Your task to perform on an android device: Search for Mexican restaurants on Maps Image 0: 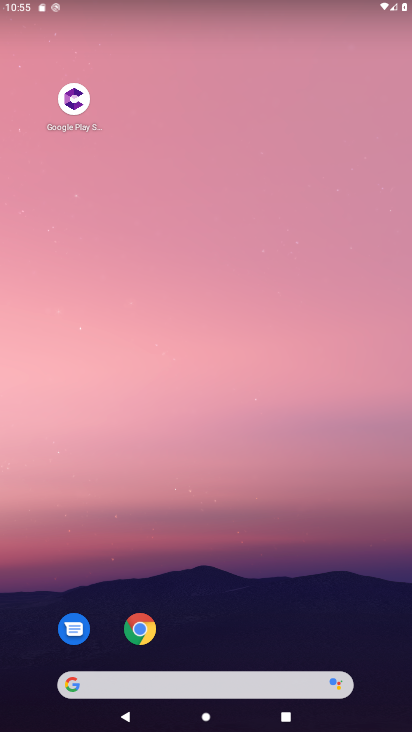
Step 0: drag from (239, 626) to (240, 101)
Your task to perform on an android device: Search for Mexican restaurants on Maps Image 1: 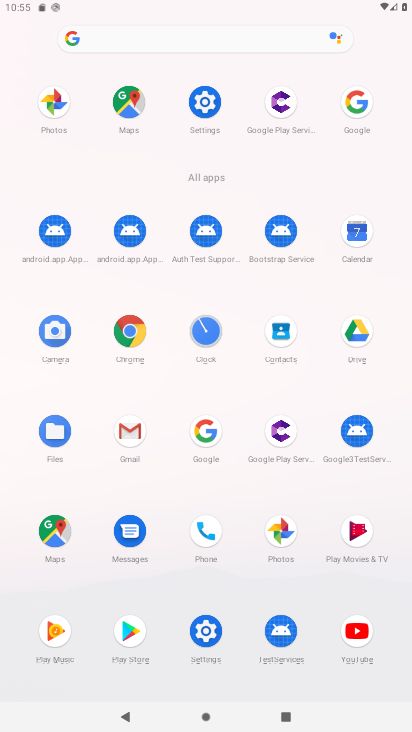
Step 1: click (55, 531)
Your task to perform on an android device: Search for Mexican restaurants on Maps Image 2: 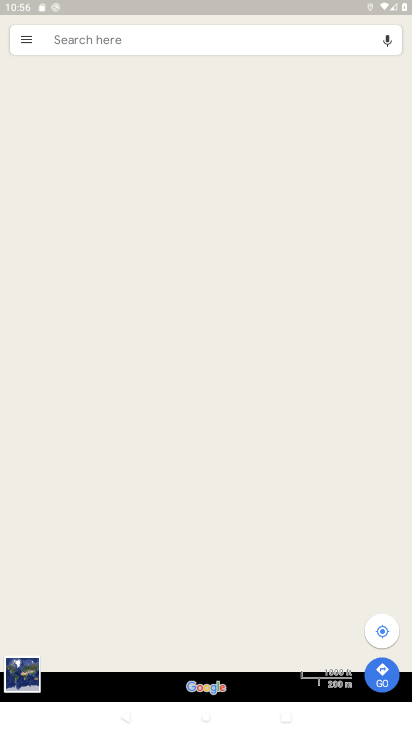
Step 2: click (183, 39)
Your task to perform on an android device: Search for Mexican restaurants on Maps Image 3: 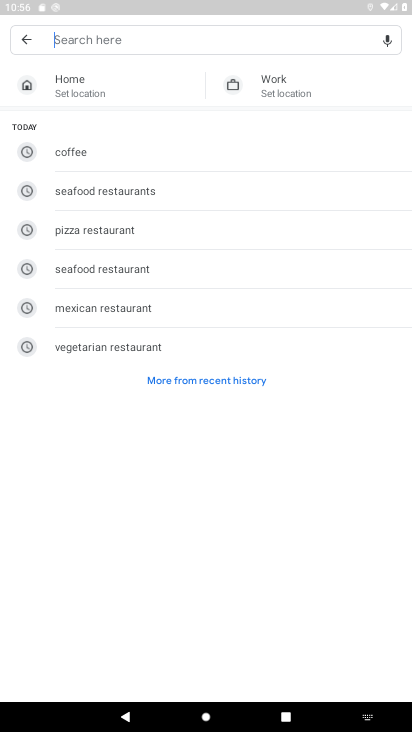
Step 3: type "Mexican restaurants"
Your task to perform on an android device: Search for Mexican restaurants on Maps Image 4: 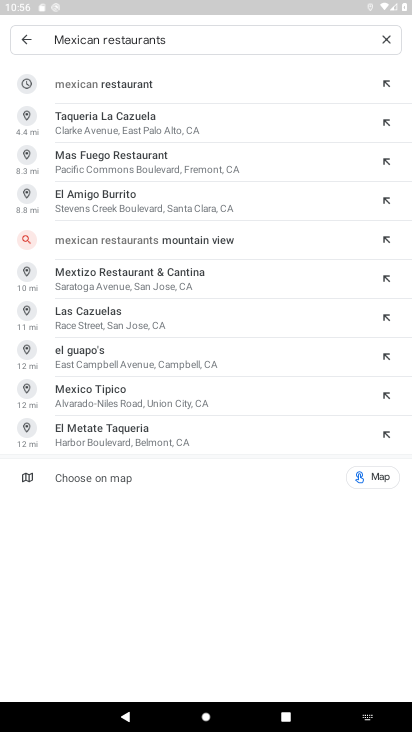
Step 4: click (135, 85)
Your task to perform on an android device: Search for Mexican restaurants on Maps Image 5: 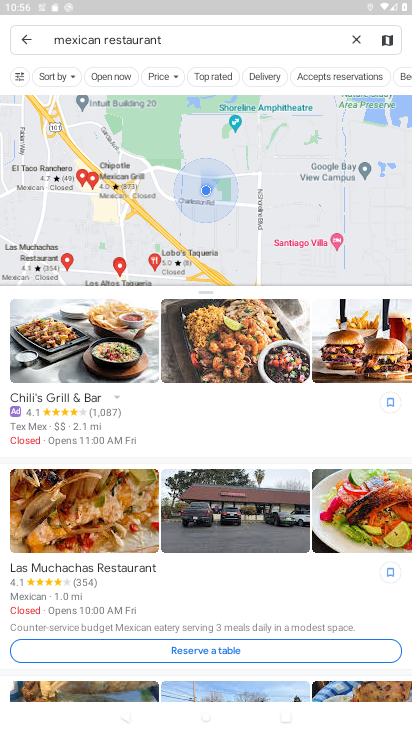
Step 5: task complete